Your task to perform on an android device: change the upload size in google photos Image 0: 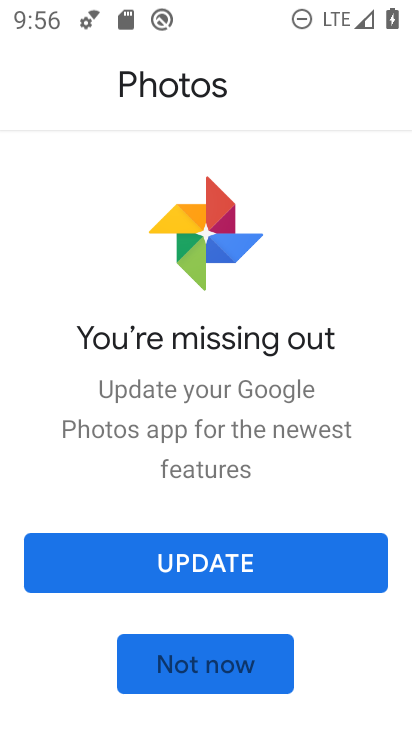
Step 0: click (164, 666)
Your task to perform on an android device: change the upload size in google photos Image 1: 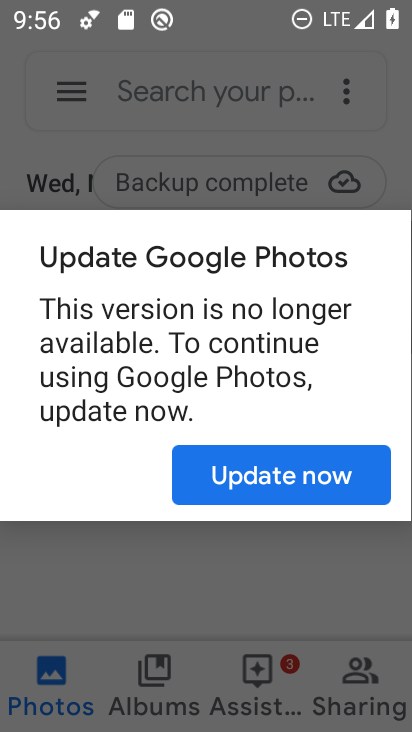
Step 1: click (164, 666)
Your task to perform on an android device: change the upload size in google photos Image 2: 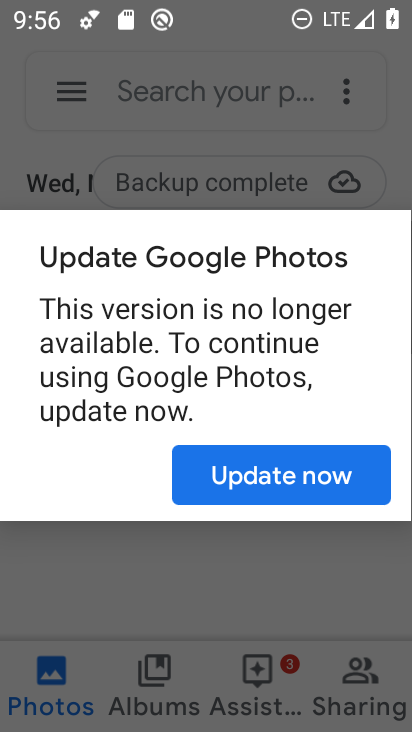
Step 2: click (308, 490)
Your task to perform on an android device: change the upload size in google photos Image 3: 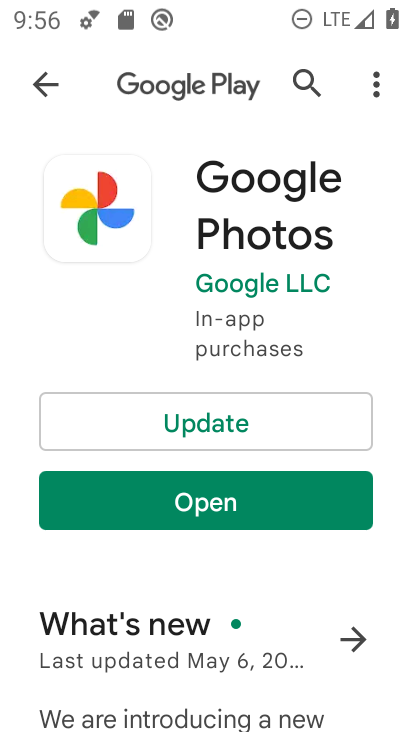
Step 3: click (239, 417)
Your task to perform on an android device: change the upload size in google photos Image 4: 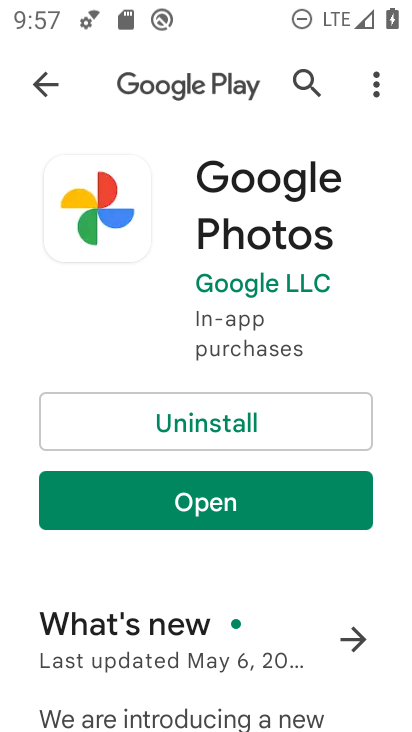
Step 4: click (193, 501)
Your task to perform on an android device: change the upload size in google photos Image 5: 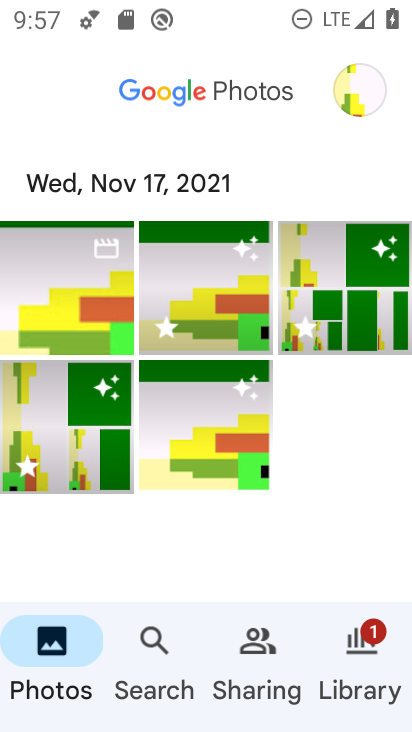
Step 5: click (376, 103)
Your task to perform on an android device: change the upload size in google photos Image 6: 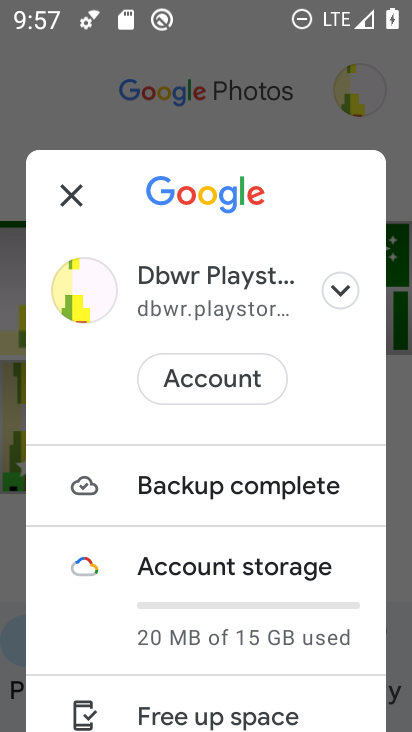
Step 6: click (190, 488)
Your task to perform on an android device: change the upload size in google photos Image 7: 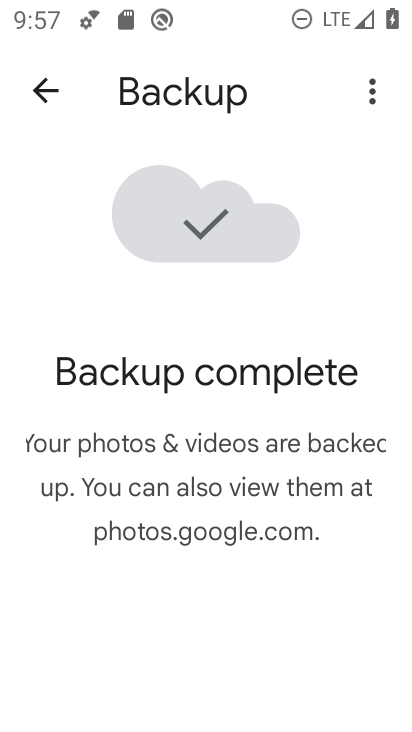
Step 7: click (391, 101)
Your task to perform on an android device: change the upload size in google photos Image 8: 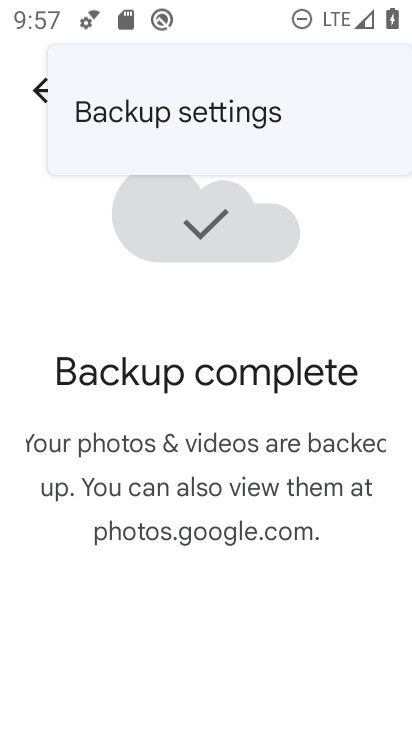
Step 8: click (239, 119)
Your task to perform on an android device: change the upload size in google photos Image 9: 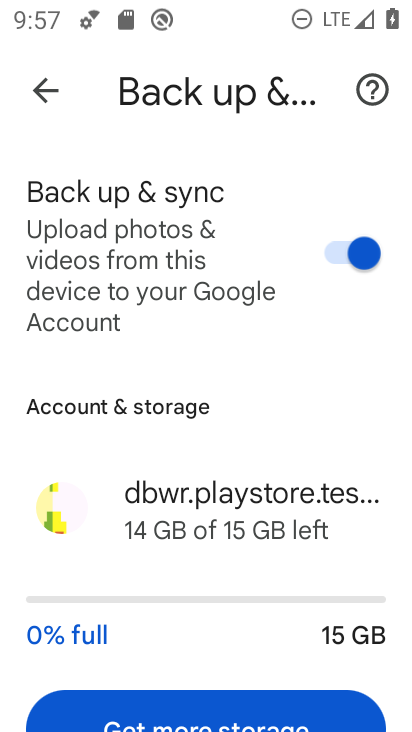
Step 9: drag from (183, 584) to (244, 371)
Your task to perform on an android device: change the upload size in google photos Image 10: 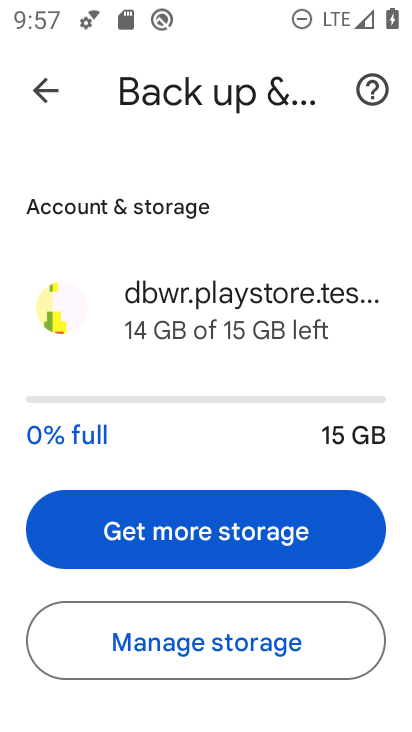
Step 10: drag from (252, 350) to (284, 145)
Your task to perform on an android device: change the upload size in google photos Image 11: 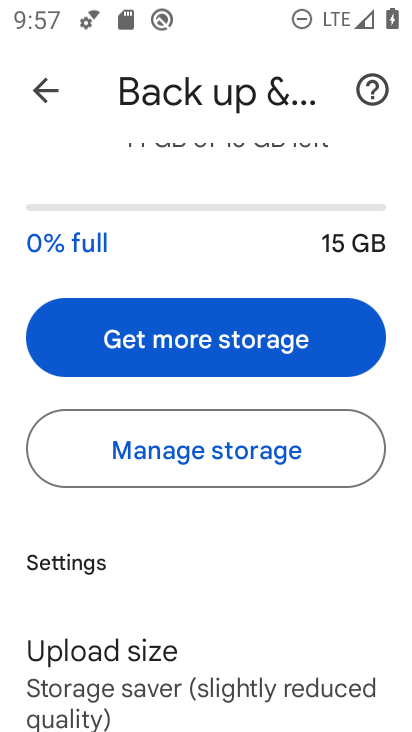
Step 11: drag from (239, 662) to (286, 263)
Your task to perform on an android device: change the upload size in google photos Image 12: 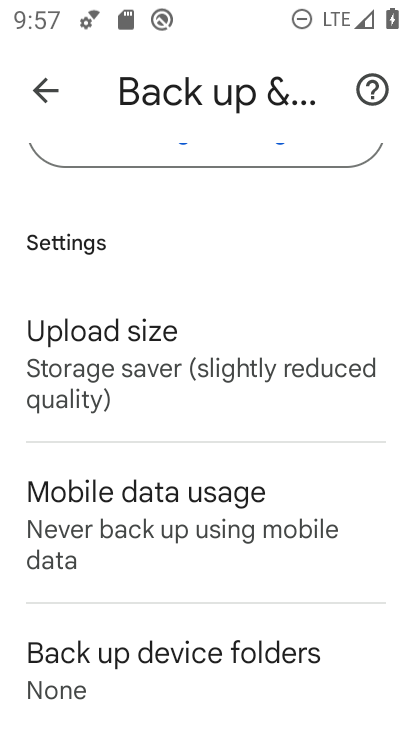
Step 12: click (202, 372)
Your task to perform on an android device: change the upload size in google photos Image 13: 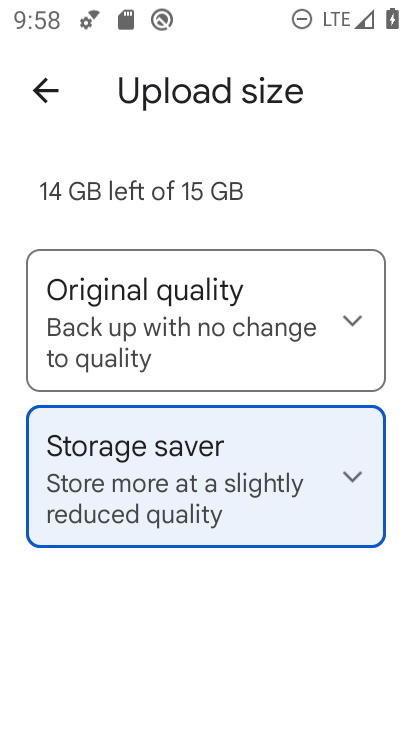
Step 13: click (238, 365)
Your task to perform on an android device: change the upload size in google photos Image 14: 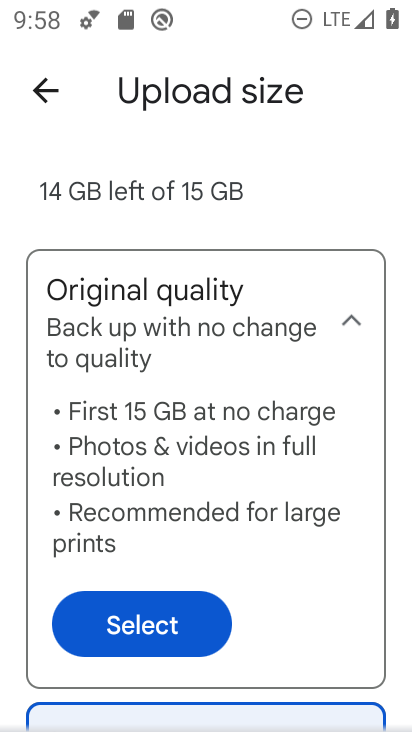
Step 14: click (159, 643)
Your task to perform on an android device: change the upload size in google photos Image 15: 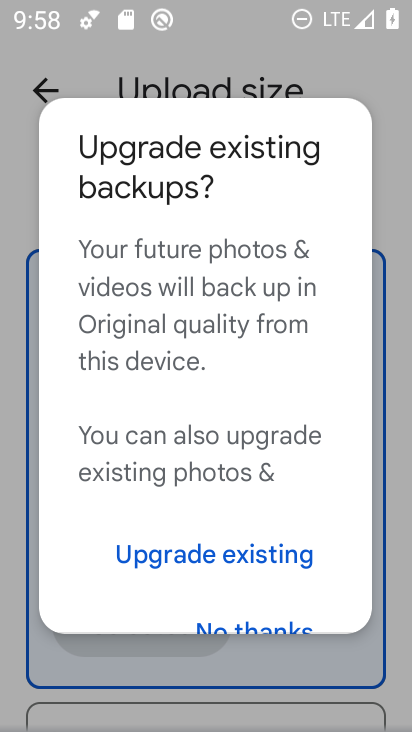
Step 15: click (217, 626)
Your task to perform on an android device: change the upload size in google photos Image 16: 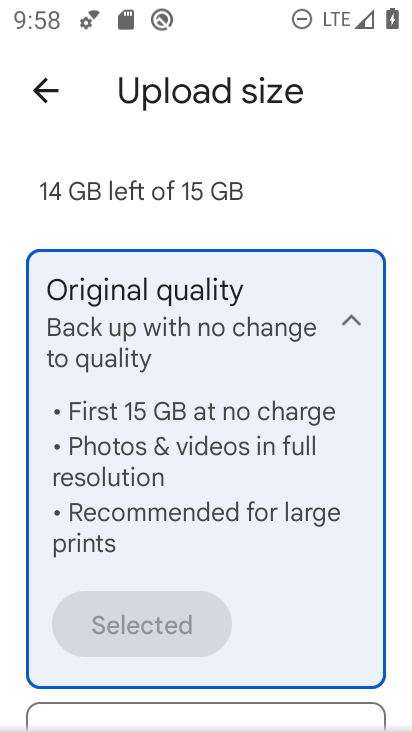
Step 16: task complete